Your task to perform on an android device: Open ESPN.com Image 0: 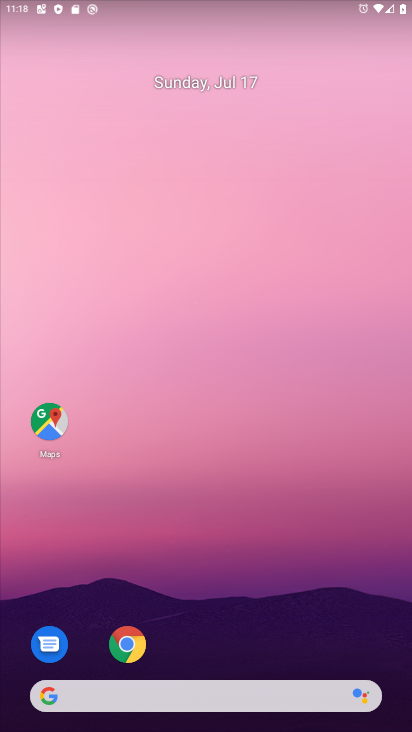
Step 0: drag from (279, 582) to (268, 130)
Your task to perform on an android device: Open ESPN.com Image 1: 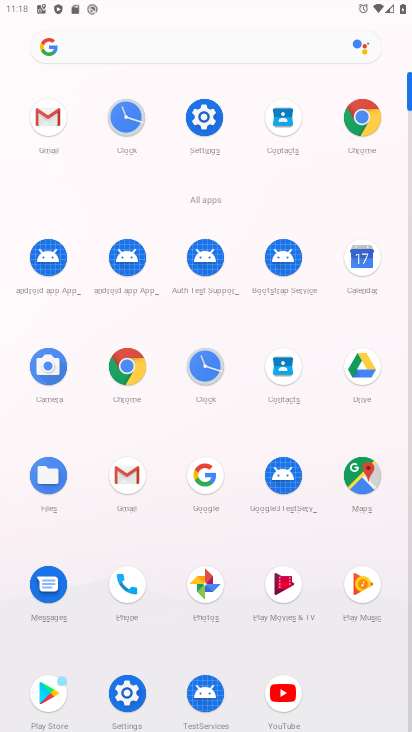
Step 1: click (365, 116)
Your task to perform on an android device: Open ESPN.com Image 2: 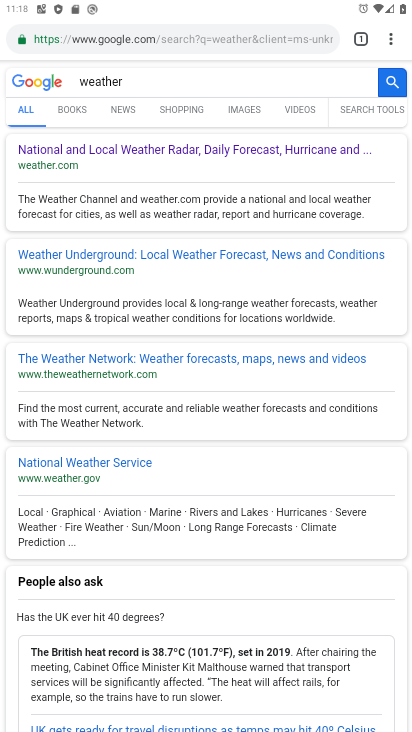
Step 2: click (244, 35)
Your task to perform on an android device: Open ESPN.com Image 3: 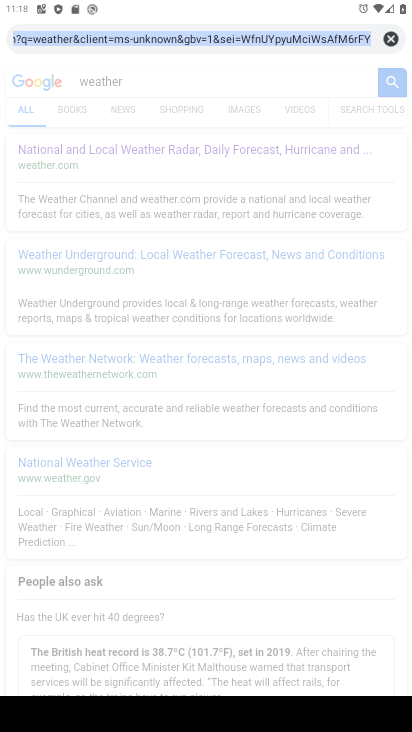
Step 3: type "espn.com"
Your task to perform on an android device: Open ESPN.com Image 4: 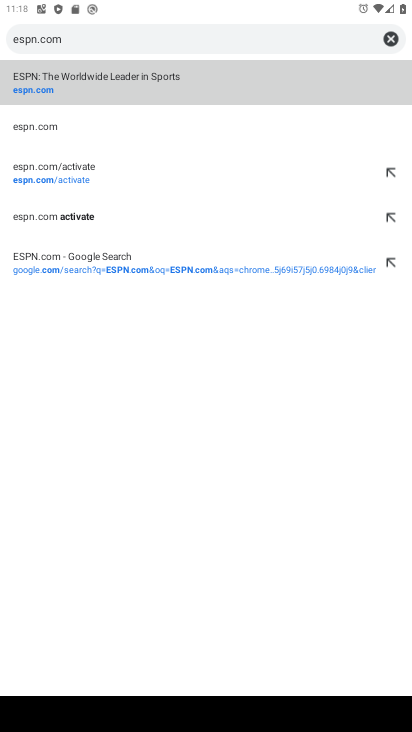
Step 4: click (36, 82)
Your task to perform on an android device: Open ESPN.com Image 5: 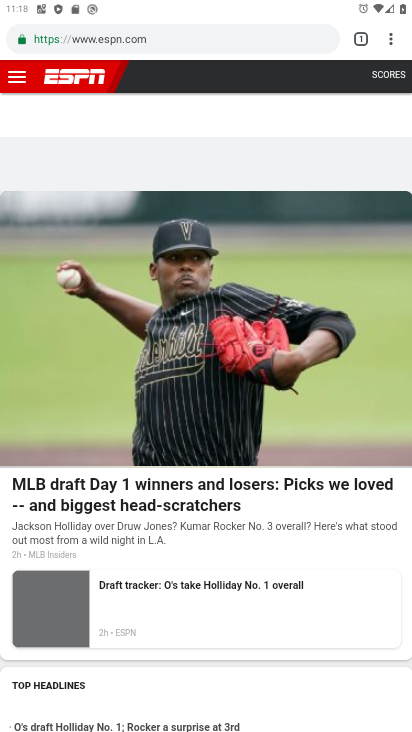
Step 5: task complete